Your task to perform on an android device: toggle translation in the chrome app Image 0: 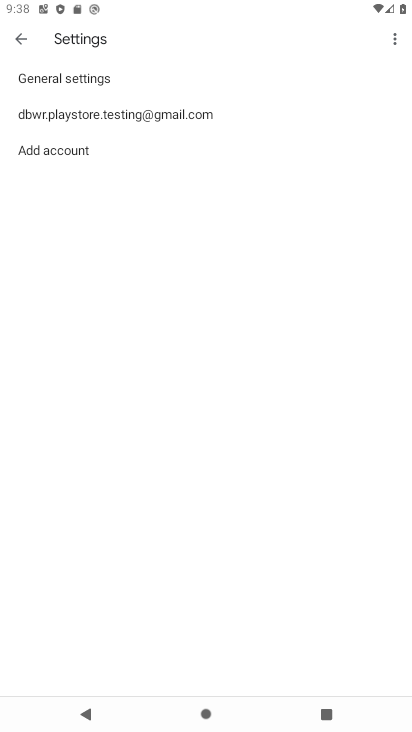
Step 0: press home button
Your task to perform on an android device: toggle translation in the chrome app Image 1: 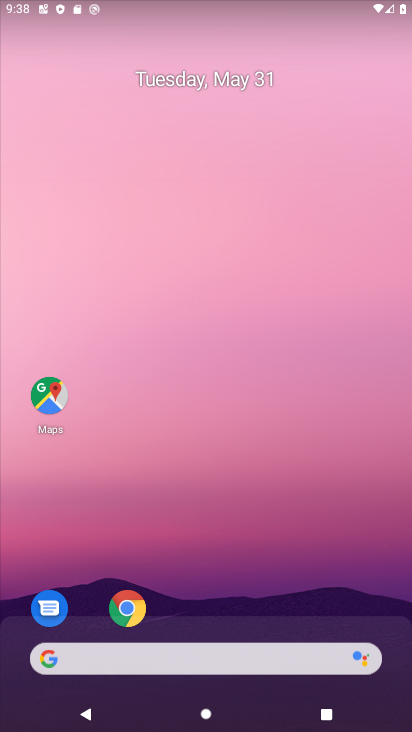
Step 1: click (113, 618)
Your task to perform on an android device: toggle translation in the chrome app Image 2: 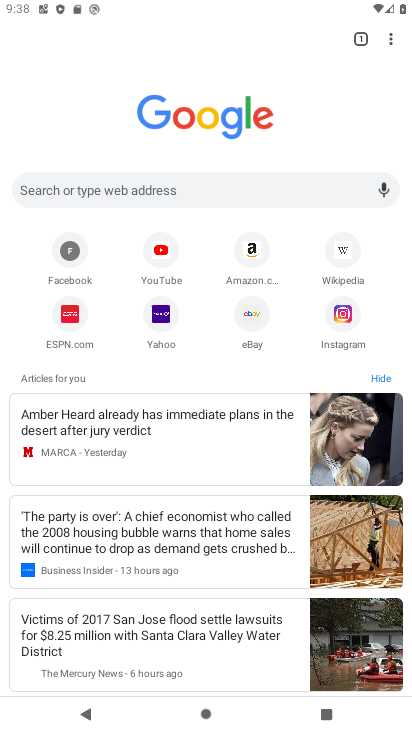
Step 2: click (394, 42)
Your task to perform on an android device: toggle translation in the chrome app Image 3: 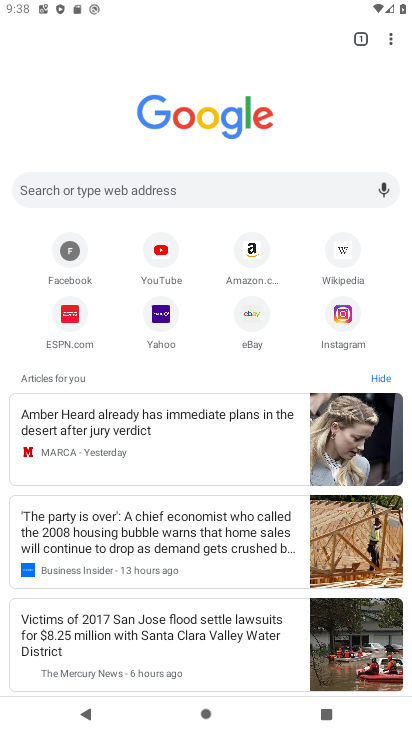
Step 3: click (387, 40)
Your task to perform on an android device: toggle translation in the chrome app Image 4: 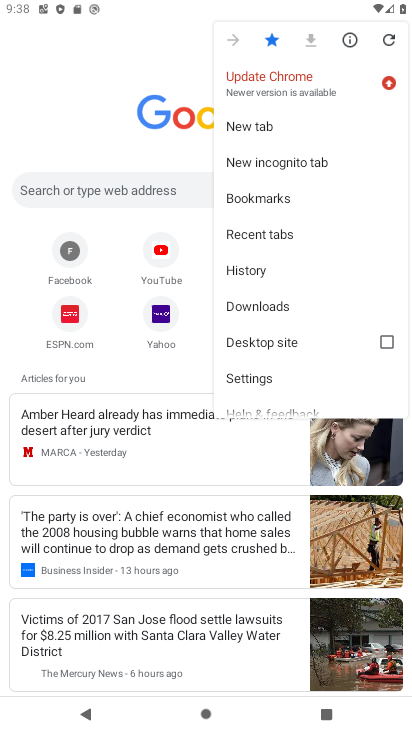
Step 4: click (252, 377)
Your task to perform on an android device: toggle translation in the chrome app Image 5: 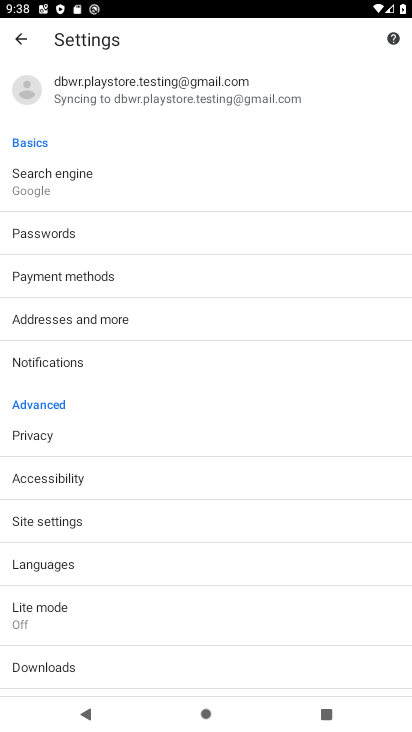
Step 5: click (77, 559)
Your task to perform on an android device: toggle translation in the chrome app Image 6: 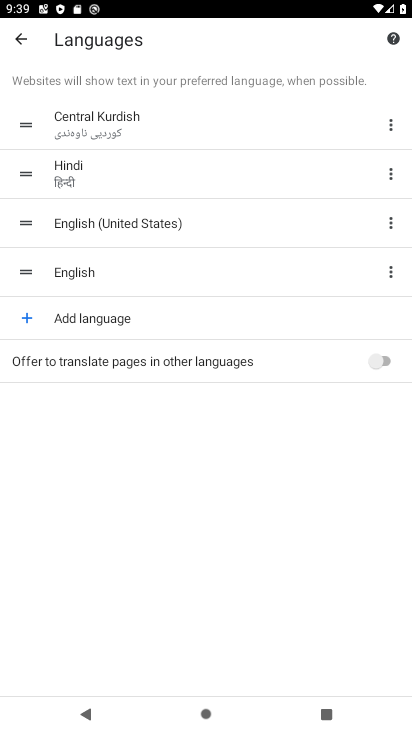
Step 6: click (378, 357)
Your task to perform on an android device: toggle translation in the chrome app Image 7: 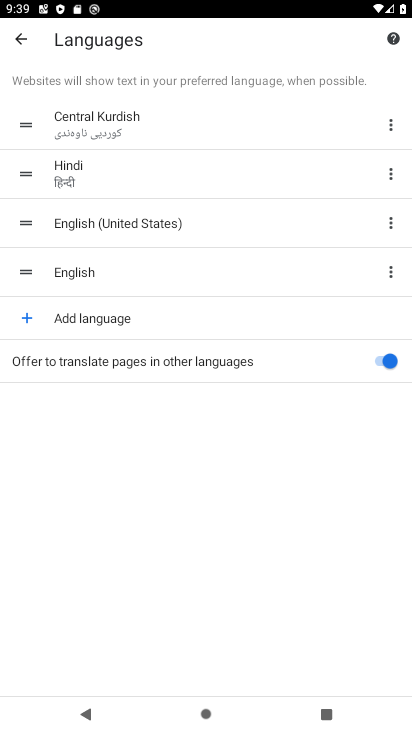
Step 7: task complete